Your task to perform on an android device: change timer sound Image 0: 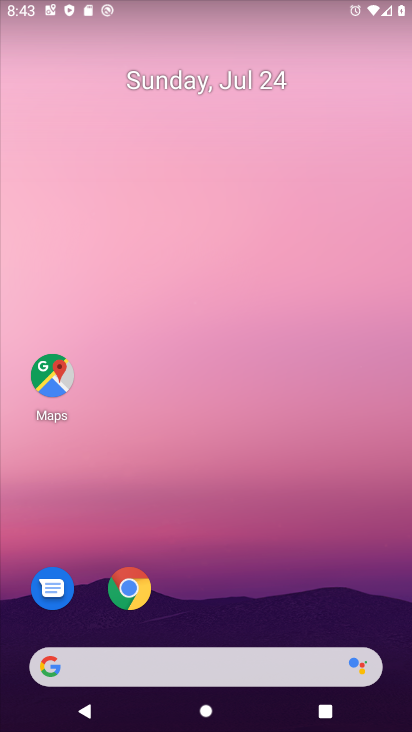
Step 0: drag from (240, 624) to (280, 0)
Your task to perform on an android device: change timer sound Image 1: 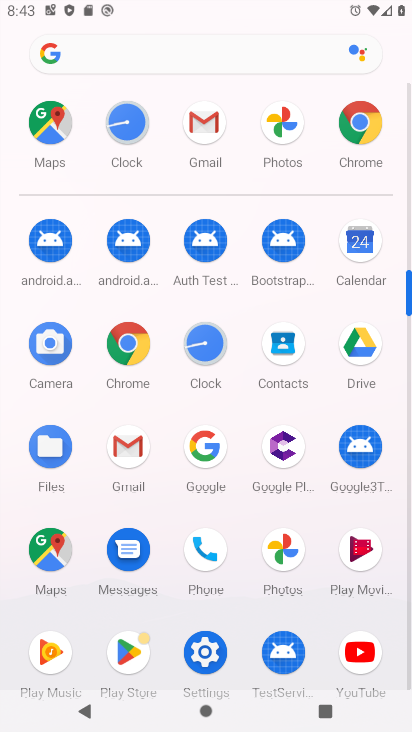
Step 1: click (130, 126)
Your task to perform on an android device: change timer sound Image 2: 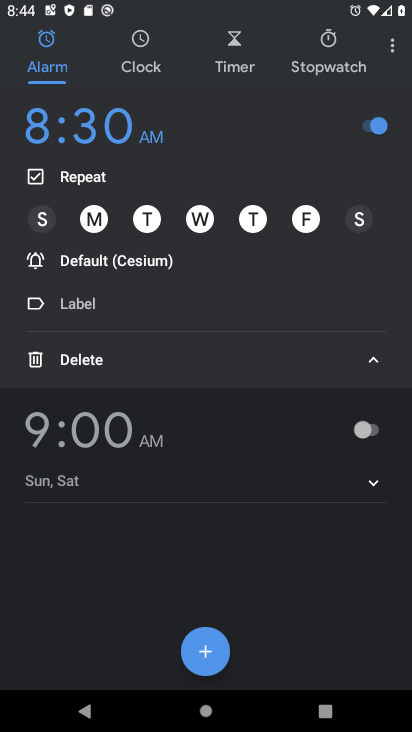
Step 2: click (385, 58)
Your task to perform on an android device: change timer sound Image 3: 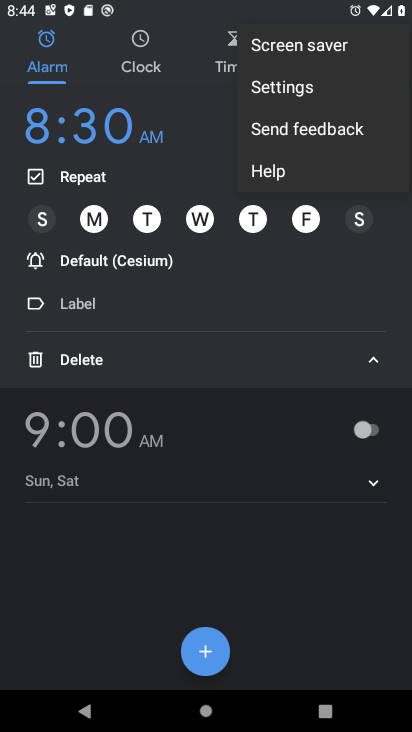
Step 3: click (261, 94)
Your task to perform on an android device: change timer sound Image 4: 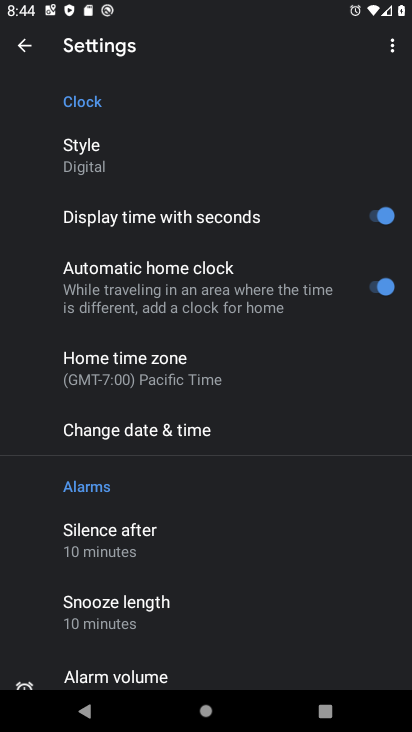
Step 4: drag from (206, 603) to (157, 164)
Your task to perform on an android device: change timer sound Image 5: 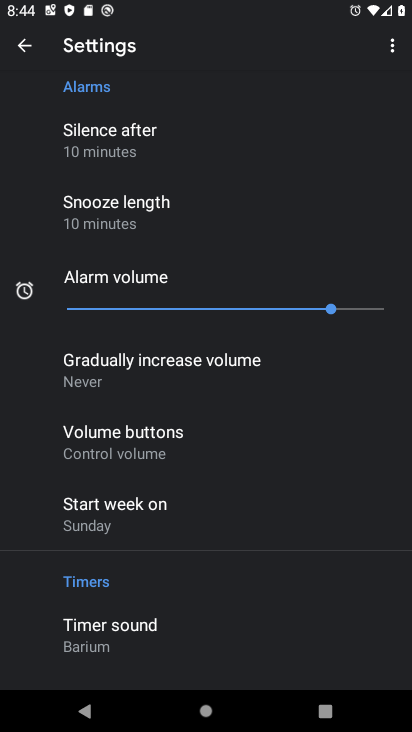
Step 5: drag from (184, 523) to (179, 145)
Your task to perform on an android device: change timer sound Image 6: 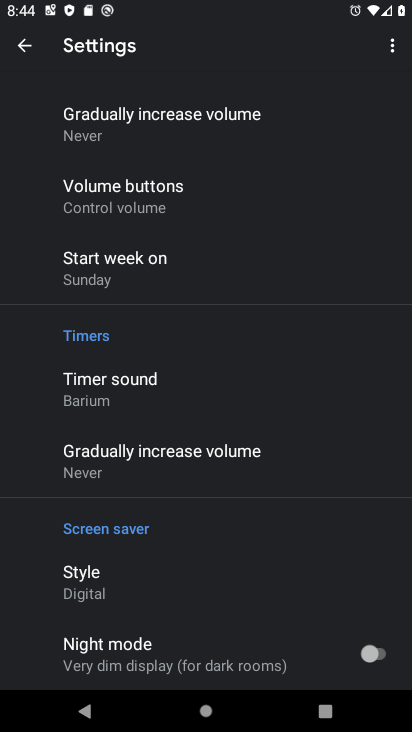
Step 6: click (119, 408)
Your task to perform on an android device: change timer sound Image 7: 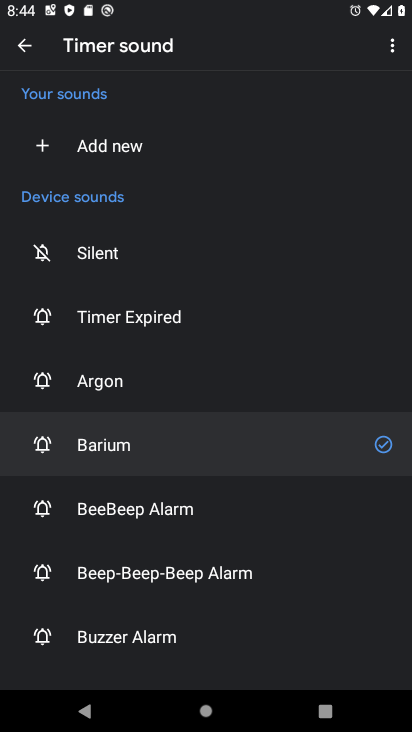
Step 7: click (141, 310)
Your task to perform on an android device: change timer sound Image 8: 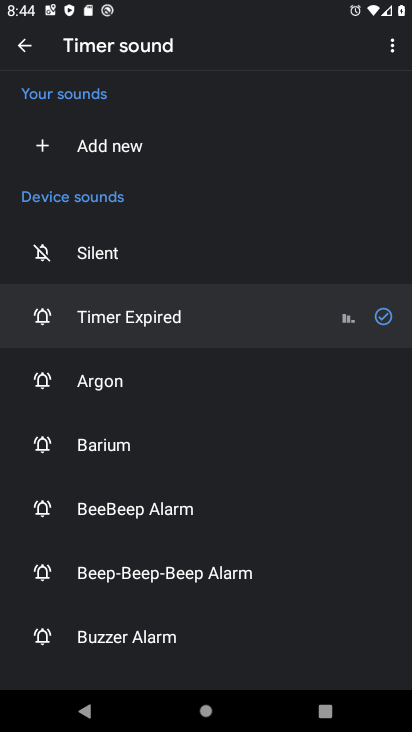
Step 8: task complete